Your task to perform on an android device: Clear the shopping cart on walmart. Image 0: 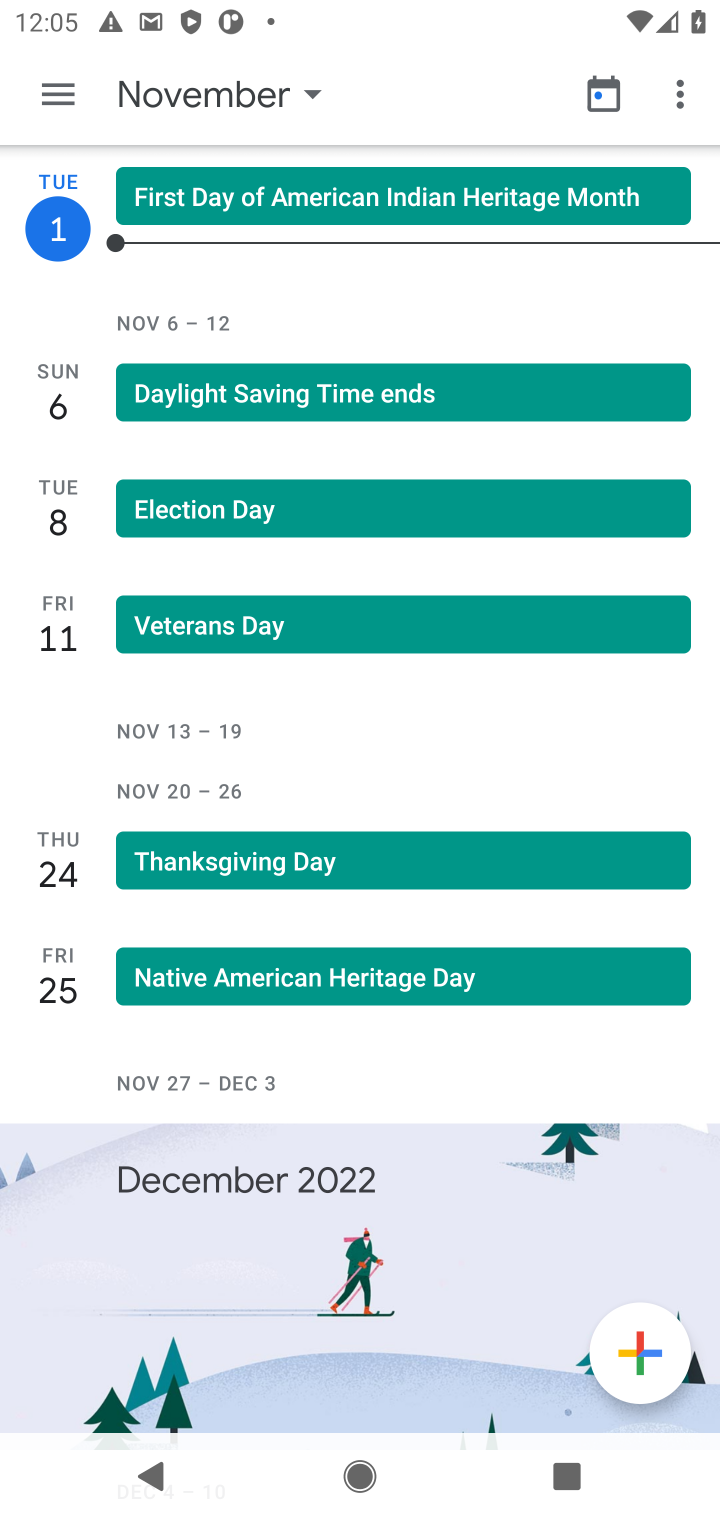
Step 0: press home button
Your task to perform on an android device: Clear the shopping cart on walmart. Image 1: 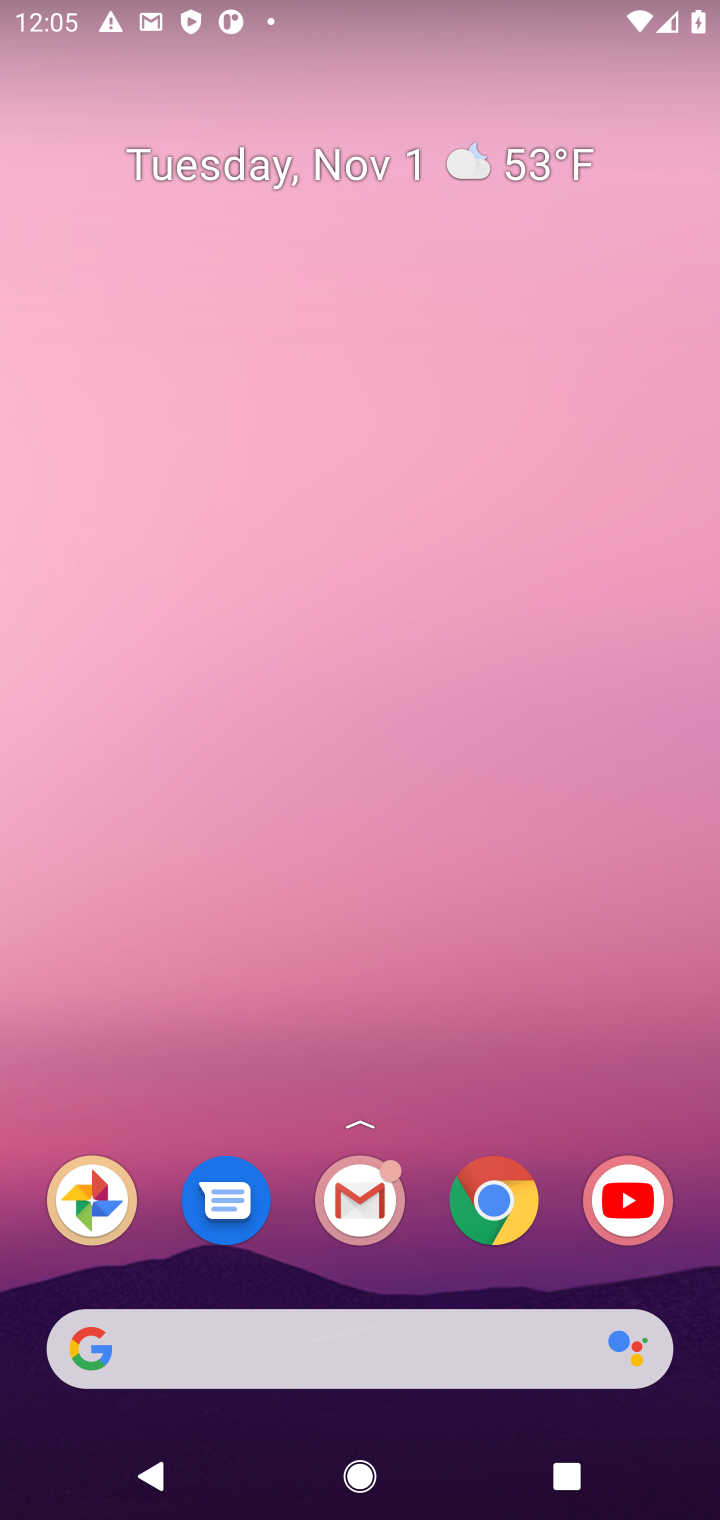
Step 1: click (494, 1185)
Your task to perform on an android device: Clear the shopping cart on walmart. Image 2: 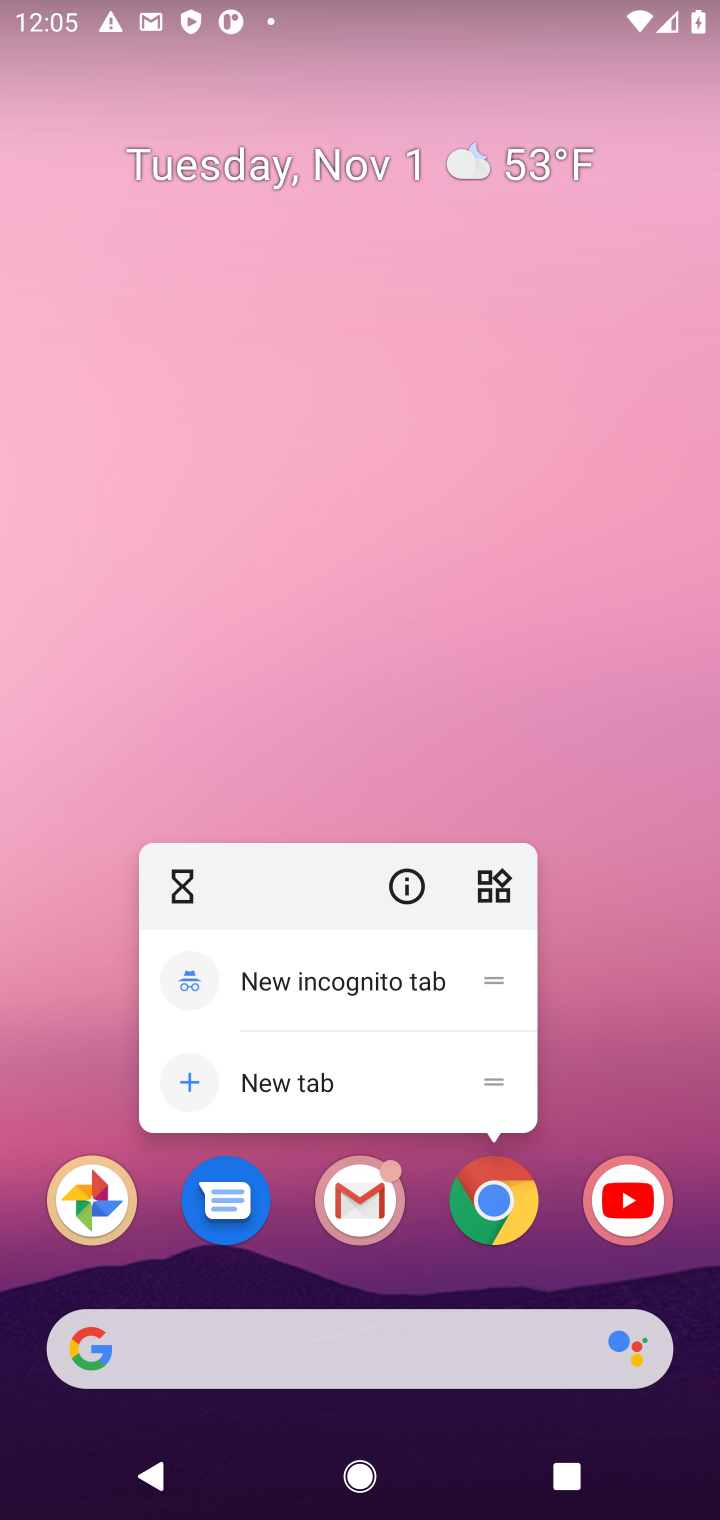
Step 2: click (482, 1216)
Your task to perform on an android device: Clear the shopping cart on walmart. Image 3: 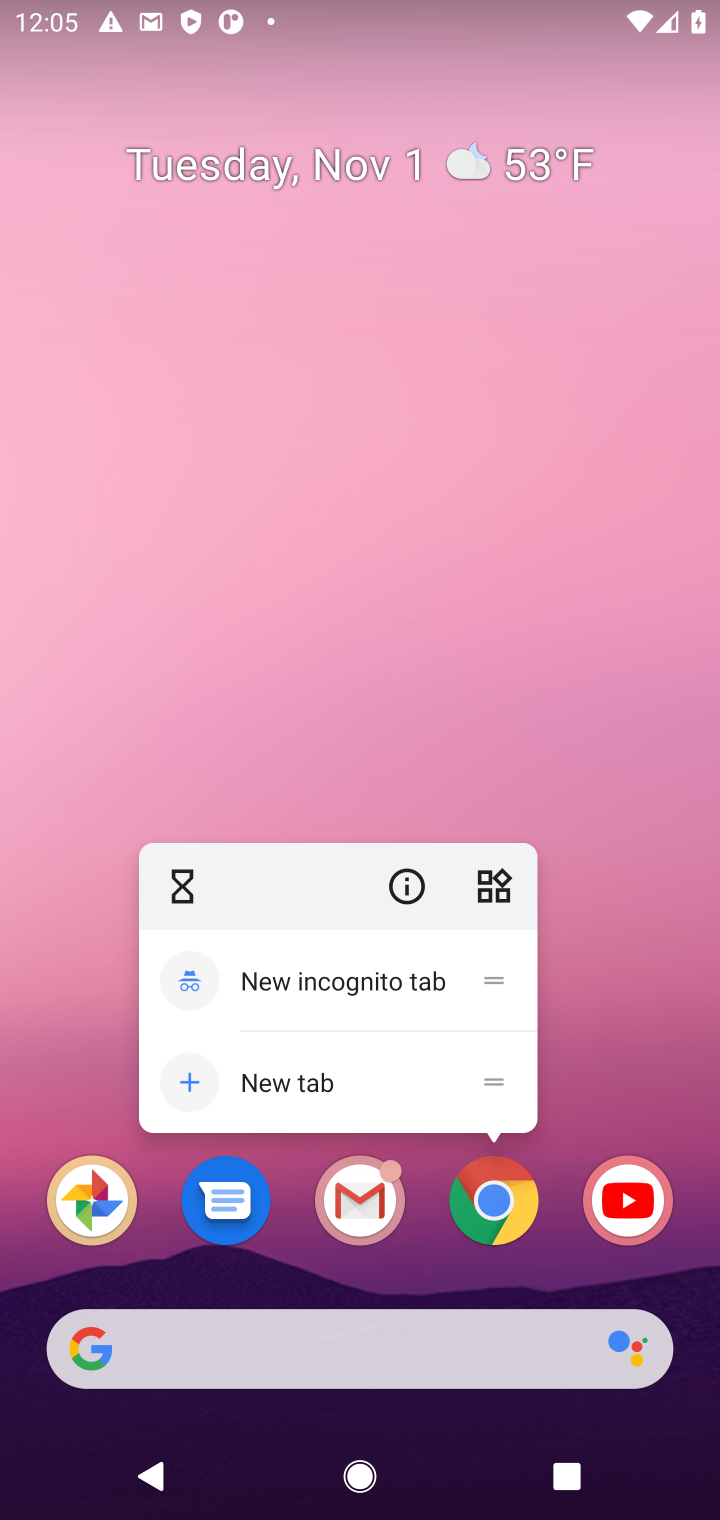
Step 3: click (490, 1209)
Your task to perform on an android device: Clear the shopping cart on walmart. Image 4: 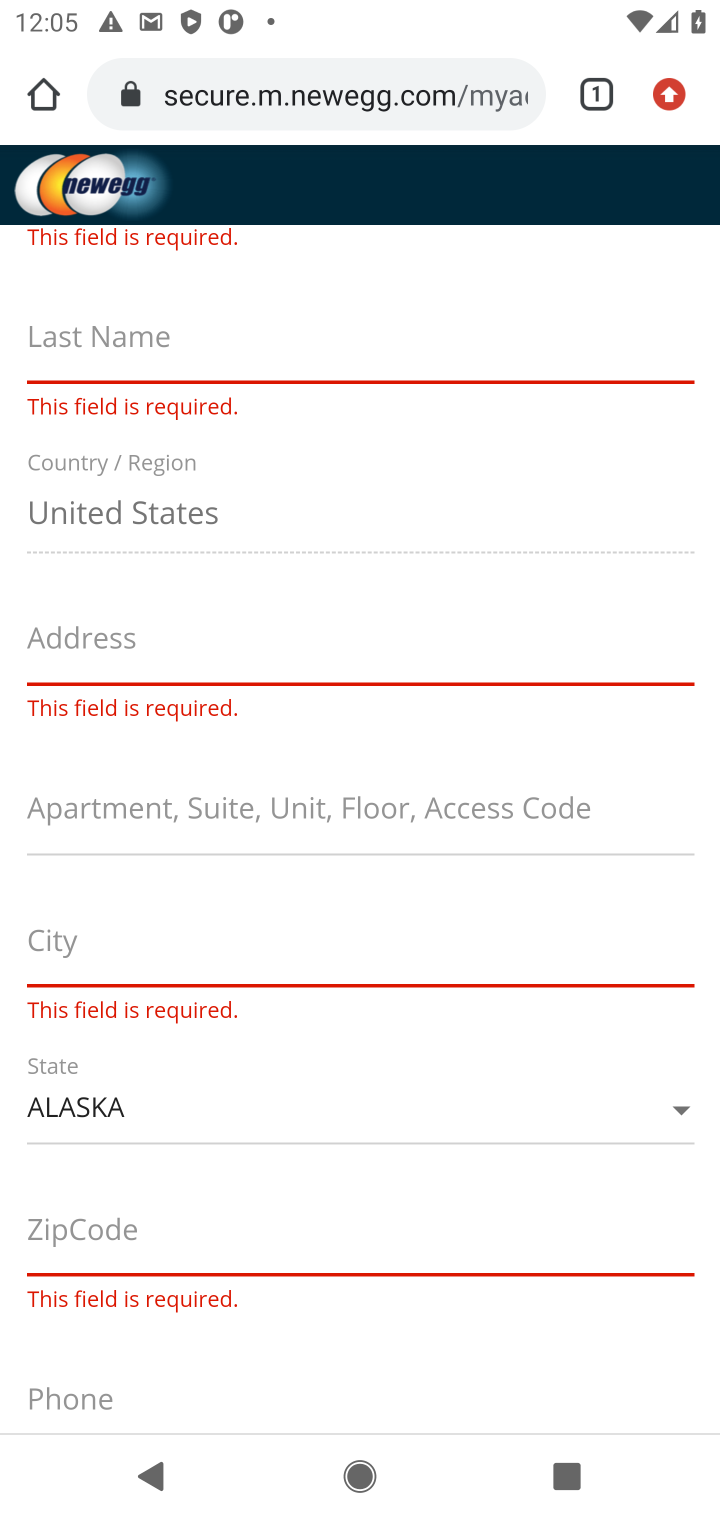
Step 4: click (333, 104)
Your task to perform on an android device: Clear the shopping cart on walmart. Image 5: 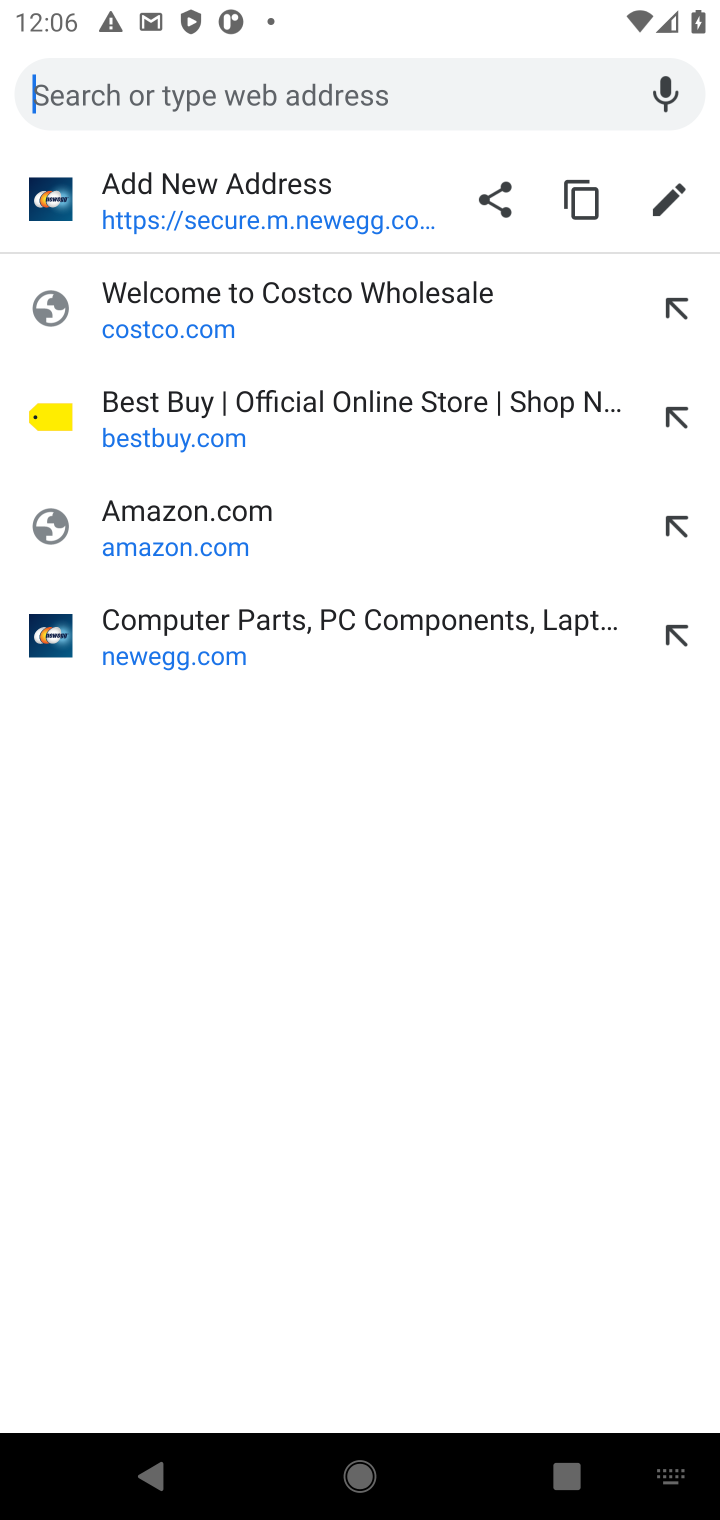
Step 5: type "walmart"
Your task to perform on an android device: Clear the shopping cart on walmart. Image 6: 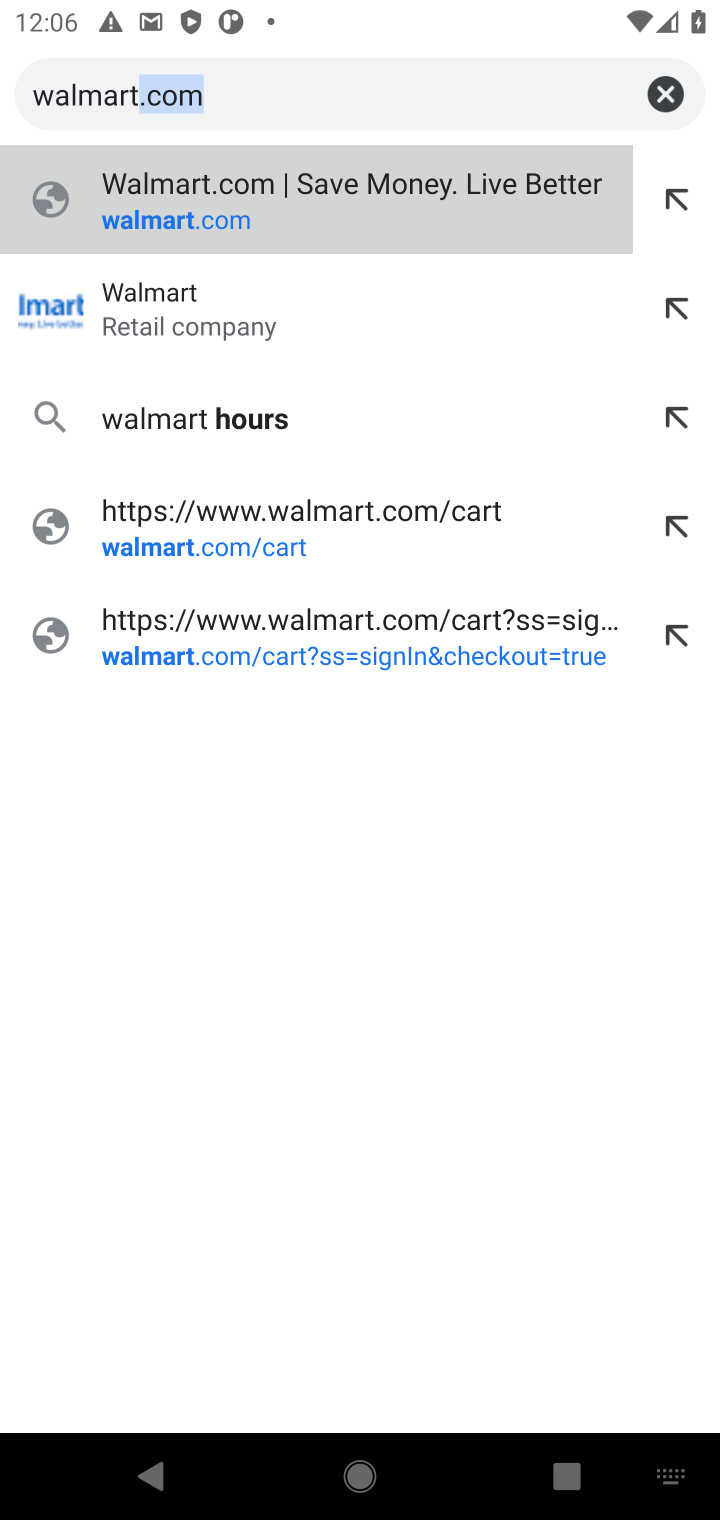
Step 6: type ""
Your task to perform on an android device: Clear the shopping cart on walmart. Image 7: 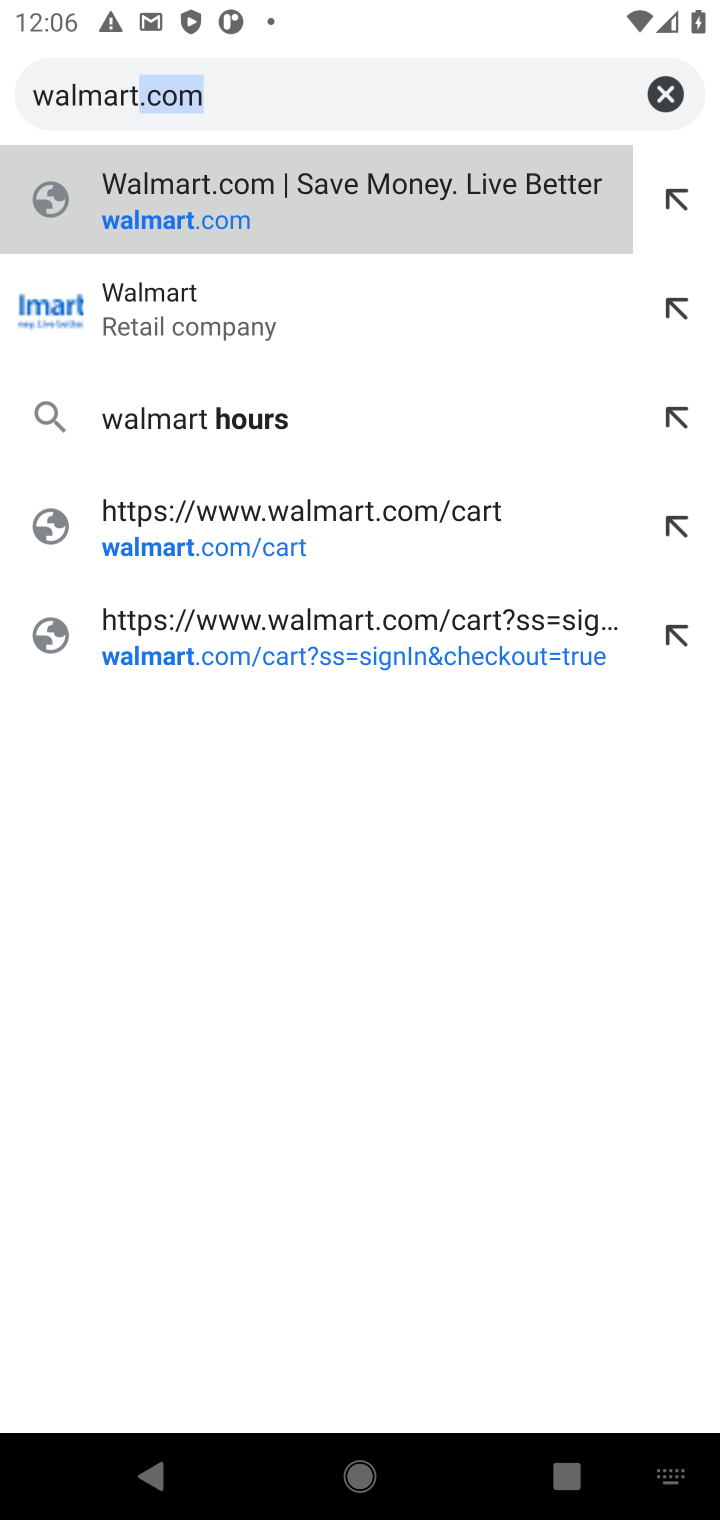
Step 7: click (564, 211)
Your task to perform on an android device: Clear the shopping cart on walmart. Image 8: 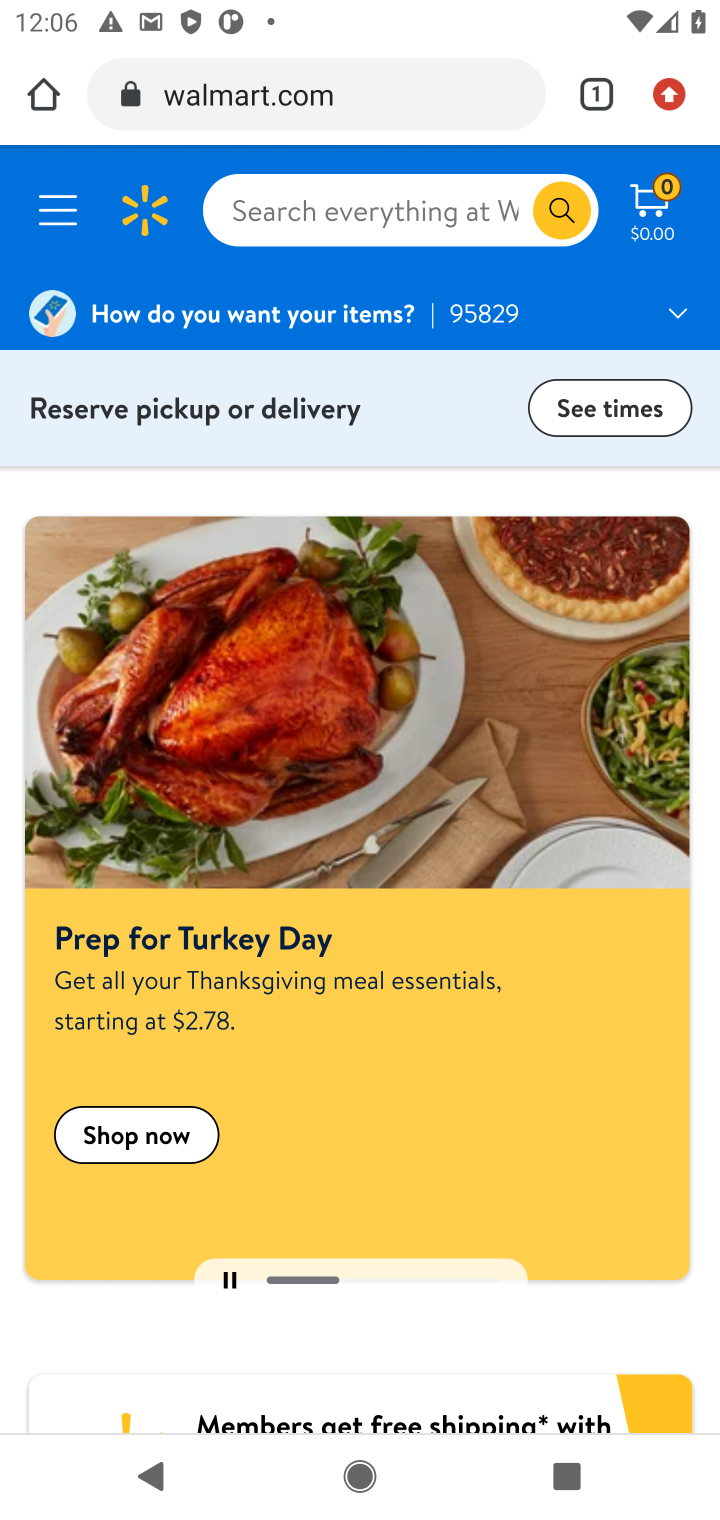
Step 8: click (661, 187)
Your task to perform on an android device: Clear the shopping cart on walmart. Image 9: 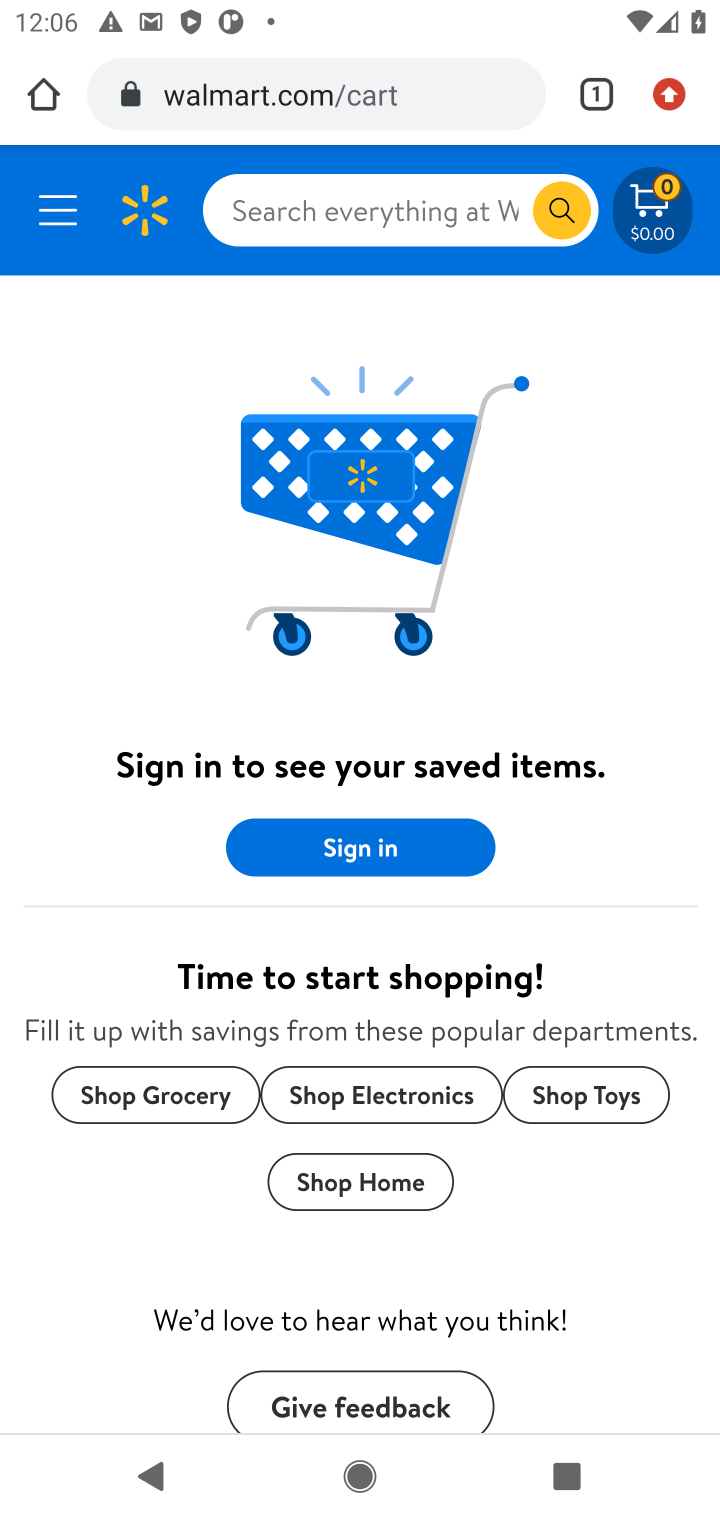
Step 9: press back button
Your task to perform on an android device: Clear the shopping cart on walmart. Image 10: 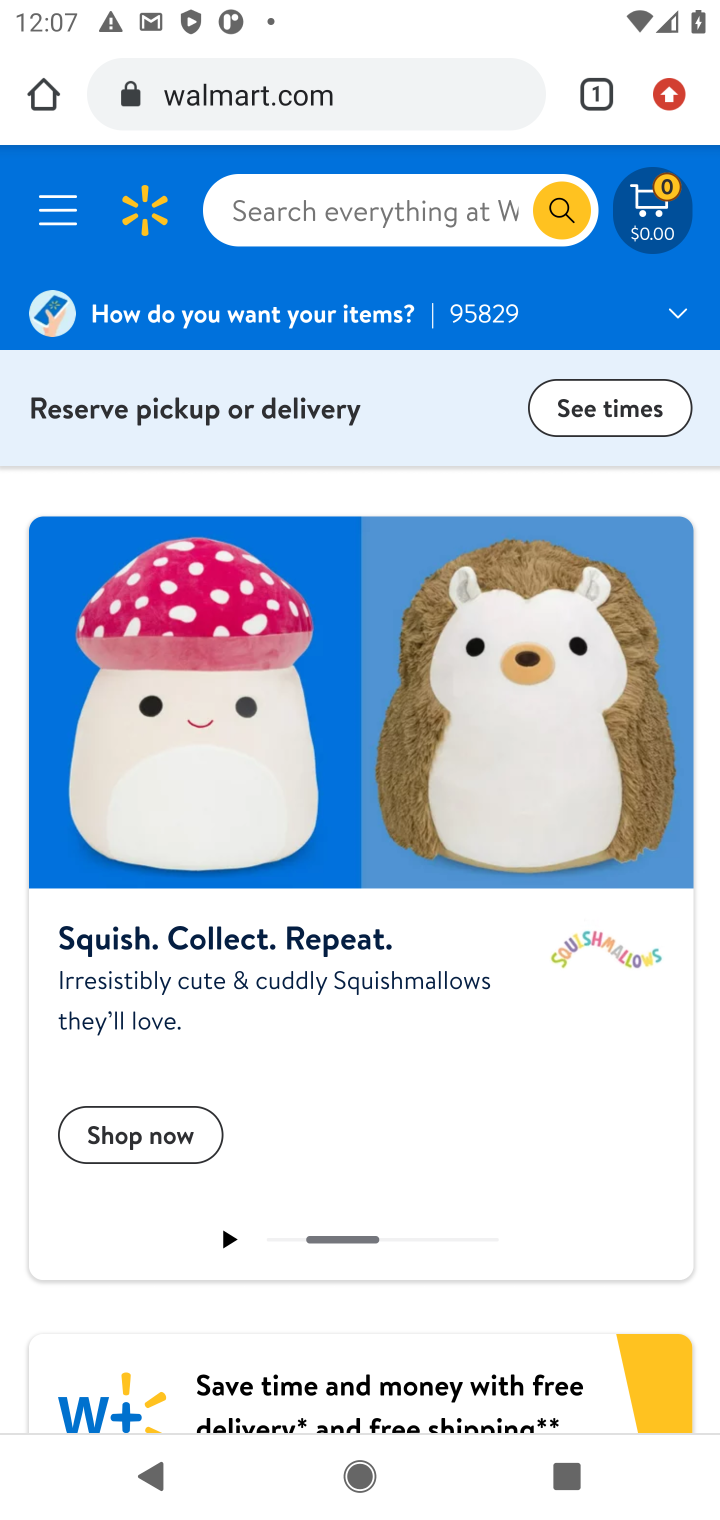
Step 10: click (660, 308)
Your task to perform on an android device: Clear the shopping cart on walmart. Image 11: 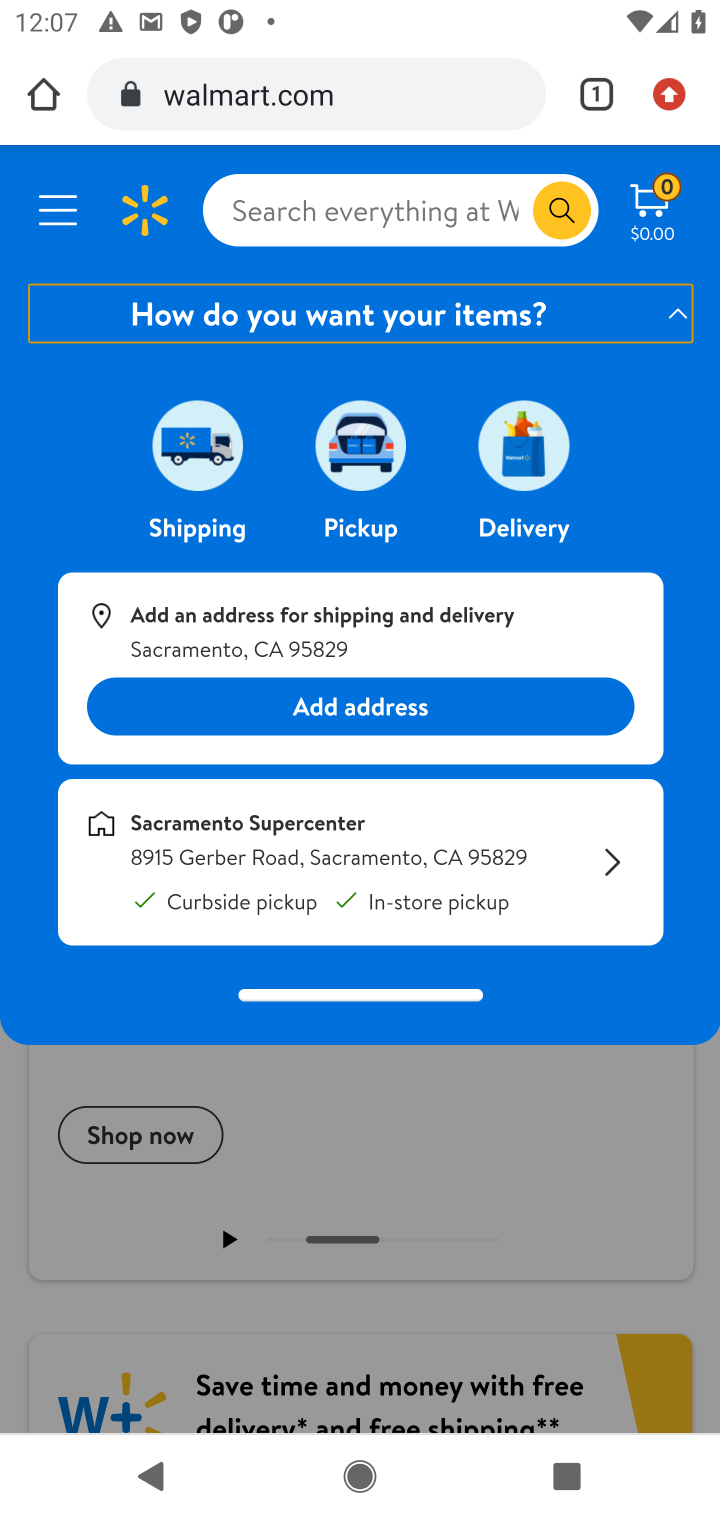
Step 11: click (660, 308)
Your task to perform on an android device: Clear the shopping cart on walmart. Image 12: 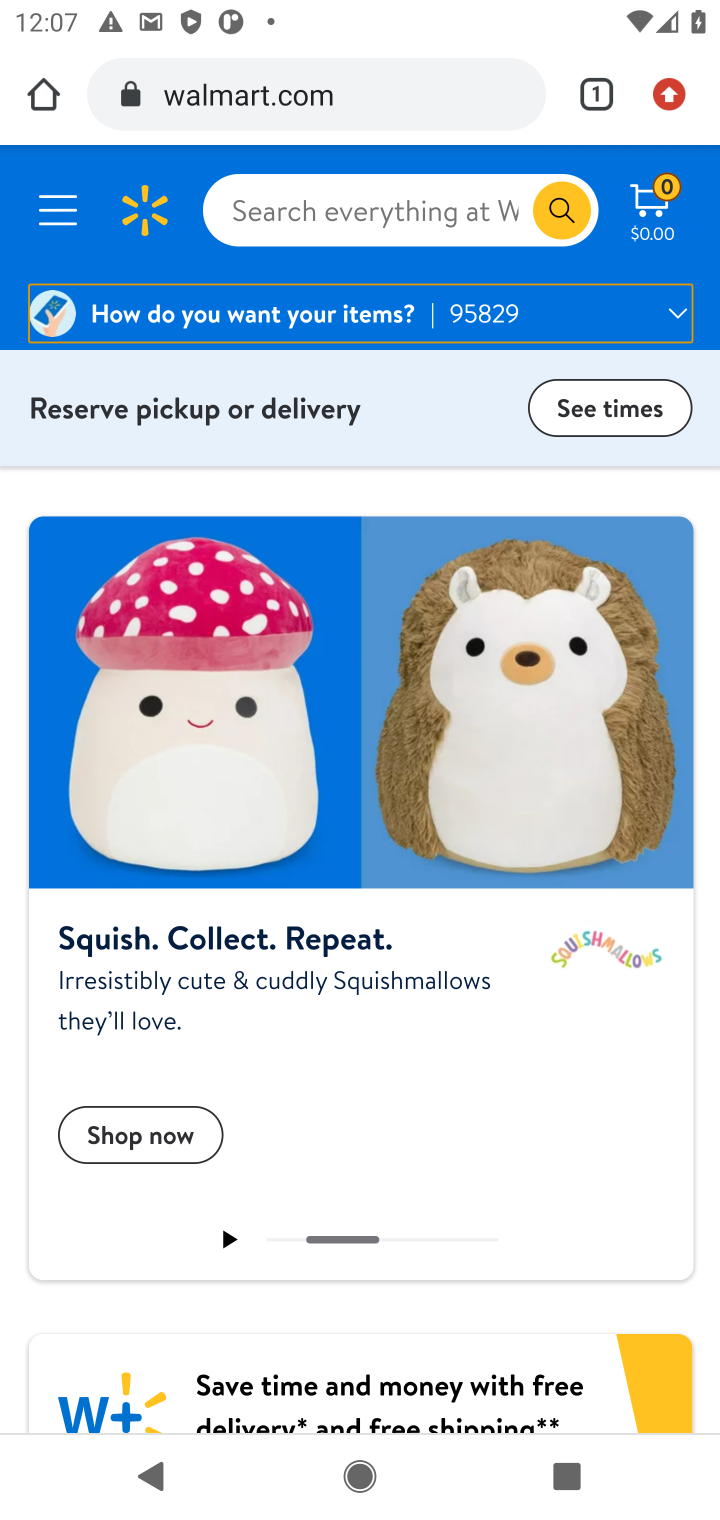
Step 12: task complete